Your task to perform on an android device: Open internet settings Image 0: 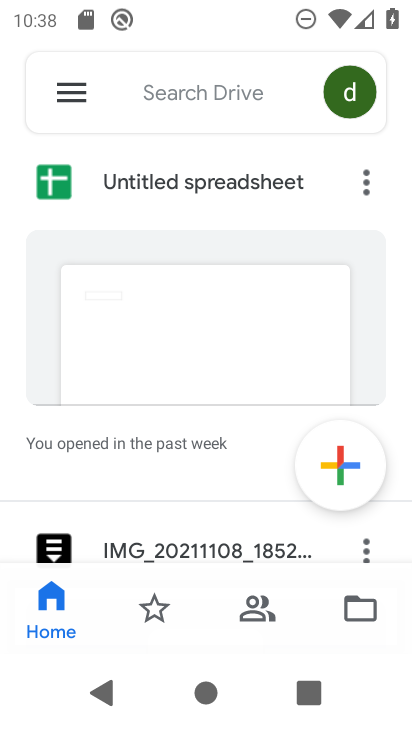
Step 0: press back button
Your task to perform on an android device: Open internet settings Image 1: 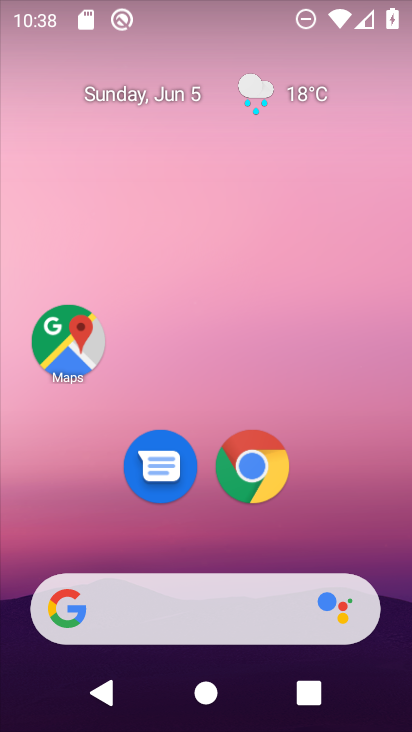
Step 1: drag from (349, 528) to (291, 33)
Your task to perform on an android device: Open internet settings Image 2: 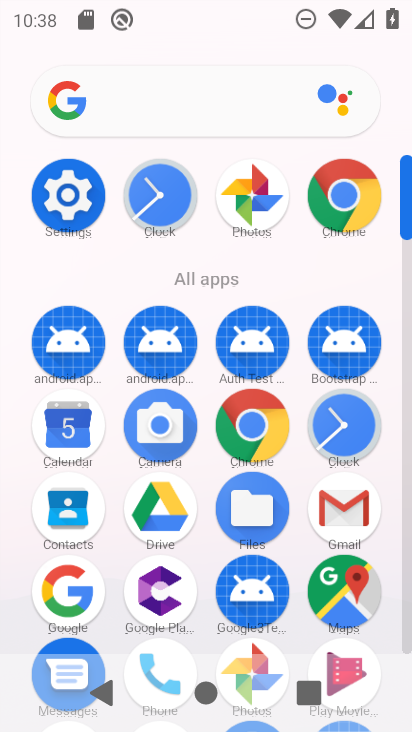
Step 2: click (65, 195)
Your task to perform on an android device: Open internet settings Image 3: 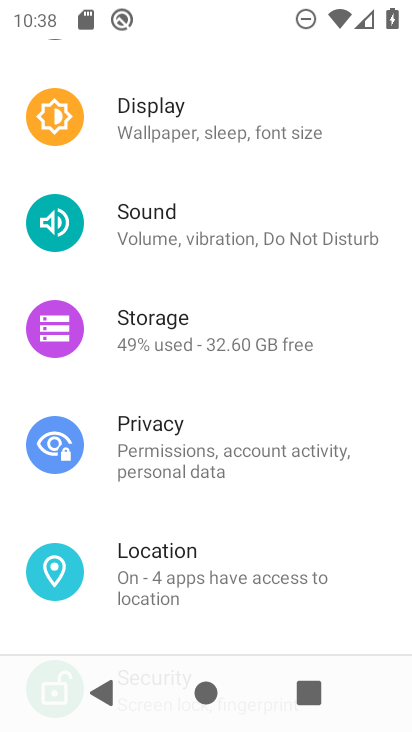
Step 3: drag from (256, 128) to (250, 574)
Your task to perform on an android device: Open internet settings Image 4: 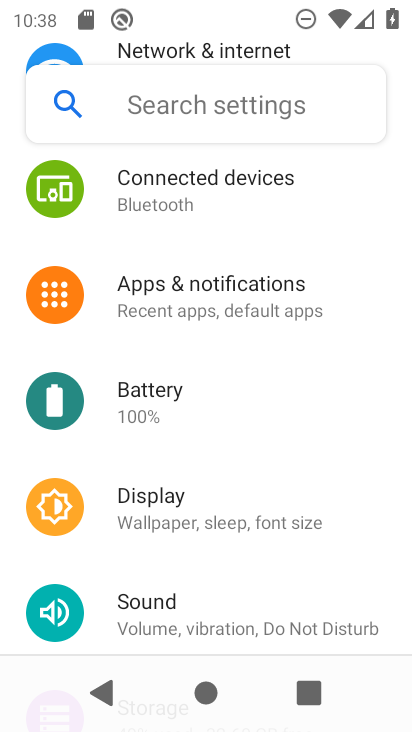
Step 4: drag from (270, 234) to (265, 566)
Your task to perform on an android device: Open internet settings Image 5: 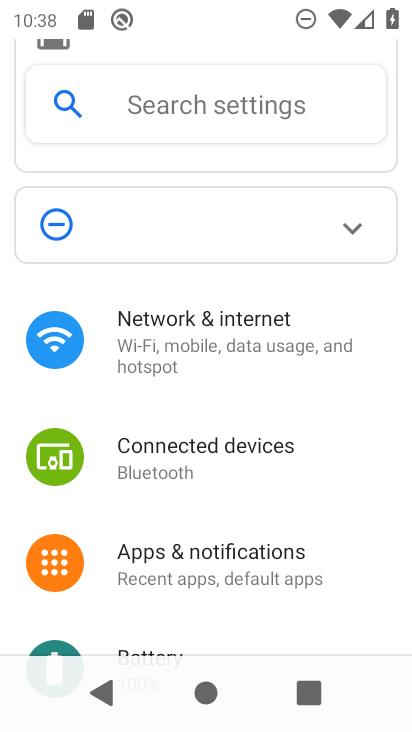
Step 5: click (252, 341)
Your task to perform on an android device: Open internet settings Image 6: 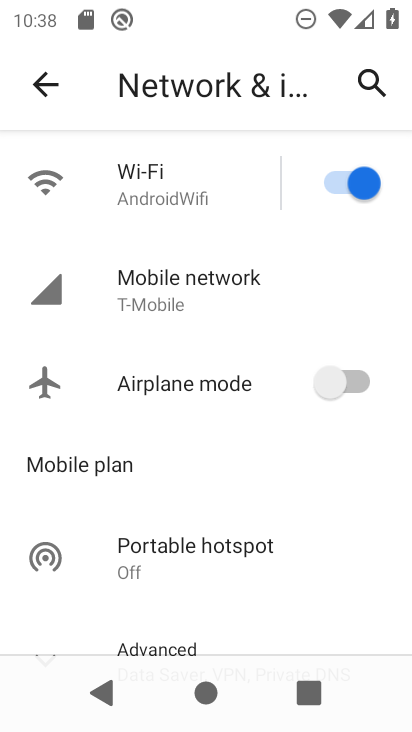
Step 6: drag from (207, 558) to (211, 224)
Your task to perform on an android device: Open internet settings Image 7: 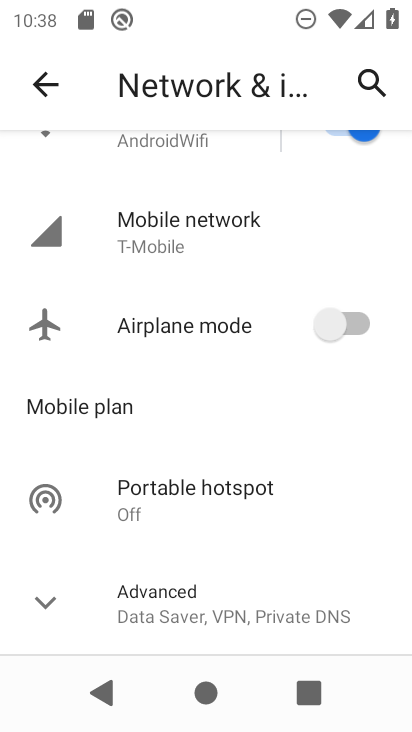
Step 7: click (48, 607)
Your task to perform on an android device: Open internet settings Image 8: 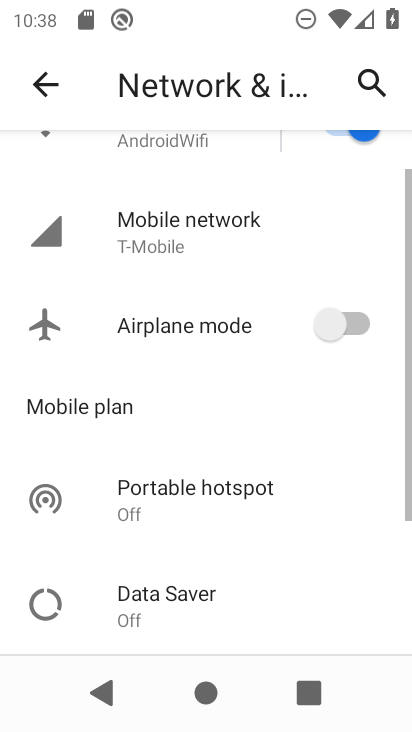
Step 8: task complete